Your task to perform on an android device: empty trash in the gmail app Image 0: 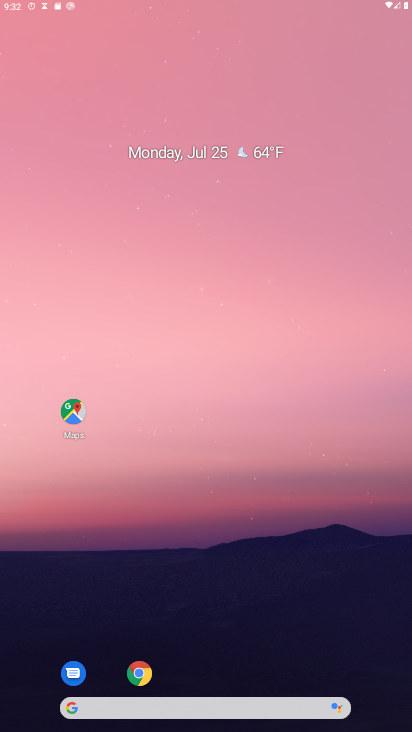
Step 0: press home button
Your task to perform on an android device: empty trash in the gmail app Image 1: 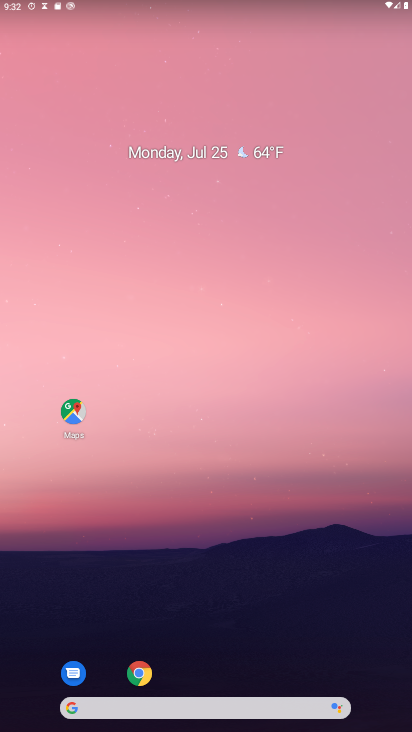
Step 1: drag from (233, 651) to (236, 180)
Your task to perform on an android device: empty trash in the gmail app Image 2: 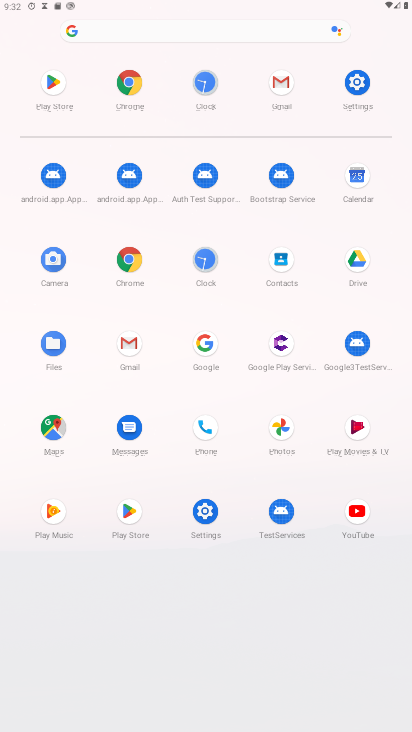
Step 2: click (125, 339)
Your task to perform on an android device: empty trash in the gmail app Image 3: 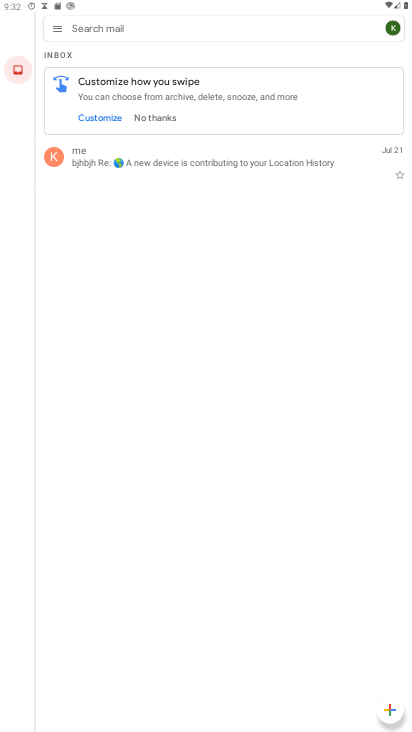
Step 3: click (52, 26)
Your task to perform on an android device: empty trash in the gmail app Image 4: 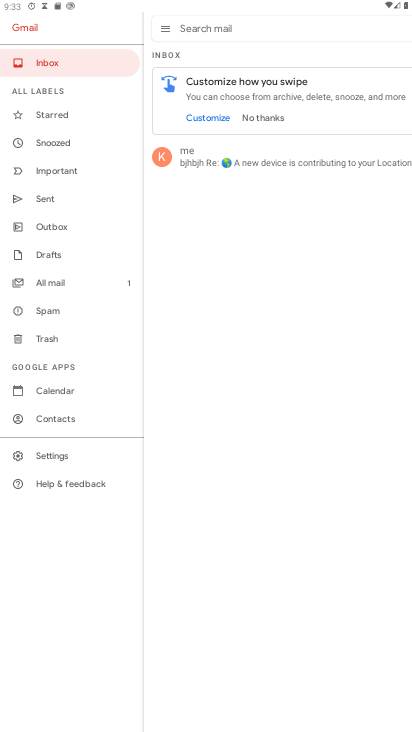
Step 4: click (56, 336)
Your task to perform on an android device: empty trash in the gmail app Image 5: 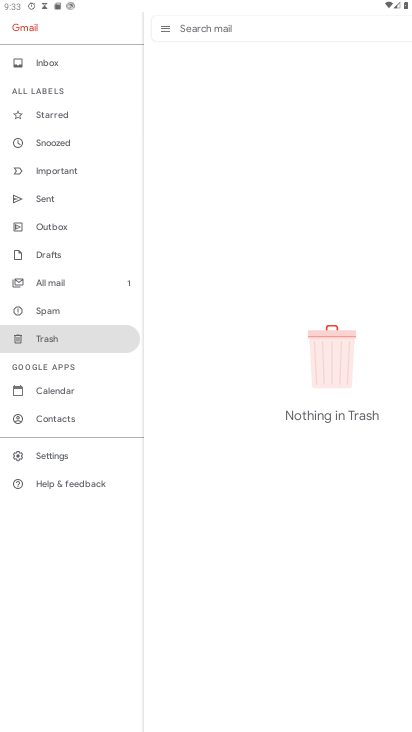
Step 5: task complete